Your task to perform on an android device: manage bookmarks in the chrome app Image 0: 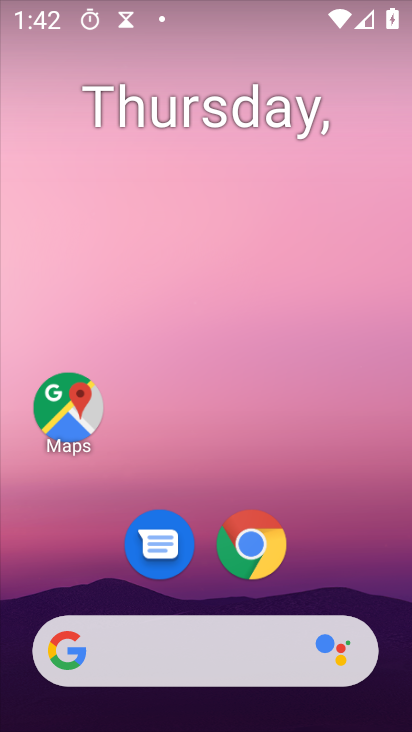
Step 0: click (254, 556)
Your task to perform on an android device: manage bookmarks in the chrome app Image 1: 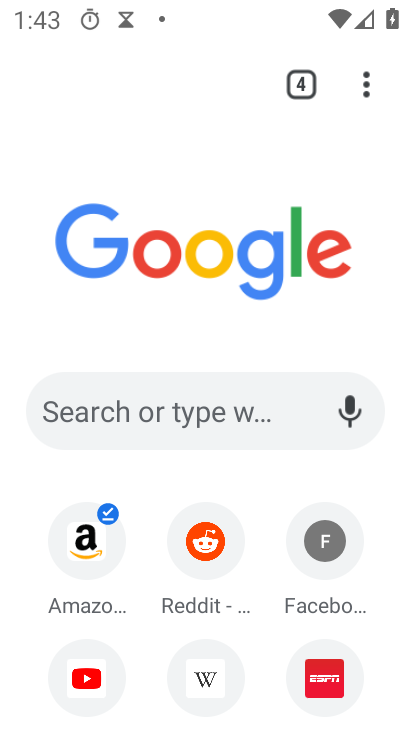
Step 1: click (369, 92)
Your task to perform on an android device: manage bookmarks in the chrome app Image 2: 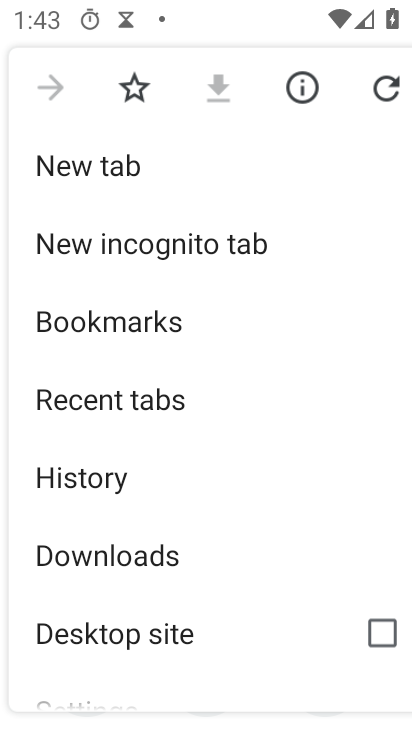
Step 2: click (132, 326)
Your task to perform on an android device: manage bookmarks in the chrome app Image 3: 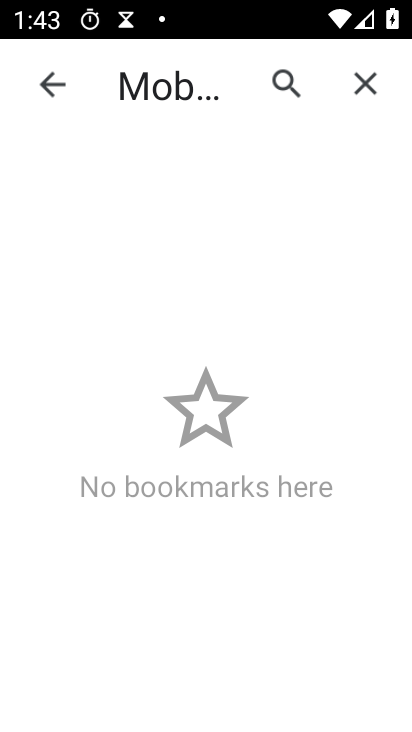
Step 3: task complete